Your task to perform on an android device: Open Google Chrome and click the shortcut for Amazon.com Image 0: 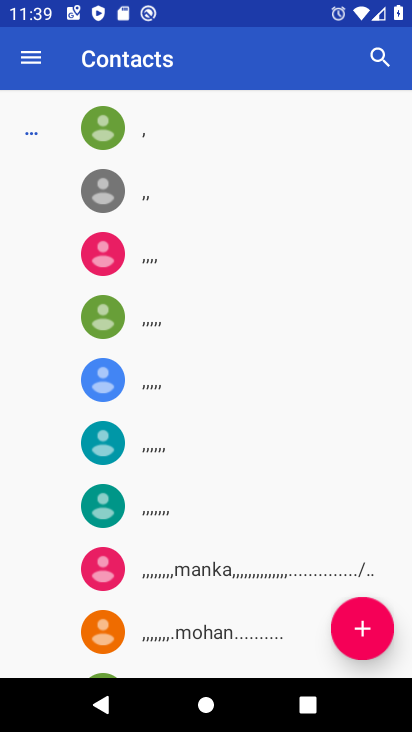
Step 0: press home button
Your task to perform on an android device: Open Google Chrome and click the shortcut for Amazon.com Image 1: 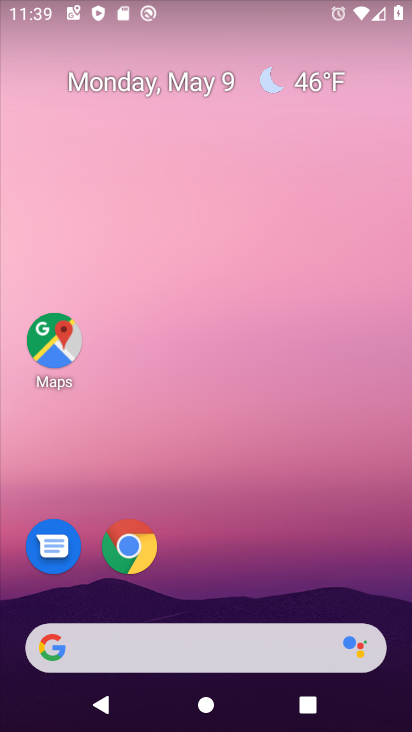
Step 1: click (135, 551)
Your task to perform on an android device: Open Google Chrome and click the shortcut for Amazon.com Image 2: 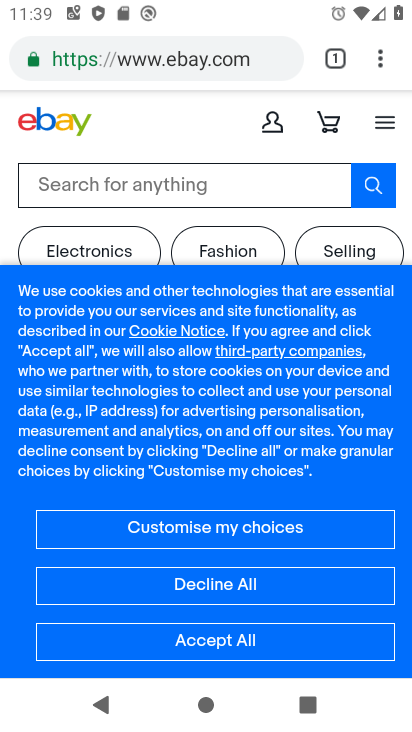
Step 2: click (382, 60)
Your task to perform on an android device: Open Google Chrome and click the shortcut for Amazon.com Image 3: 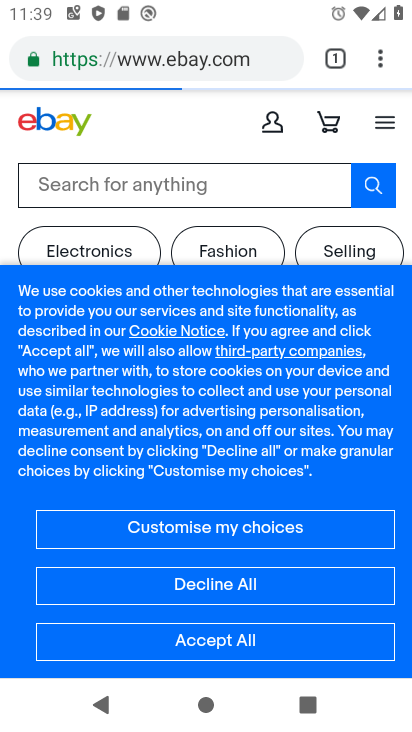
Step 3: drag from (382, 60) to (192, 107)
Your task to perform on an android device: Open Google Chrome and click the shortcut for Amazon.com Image 4: 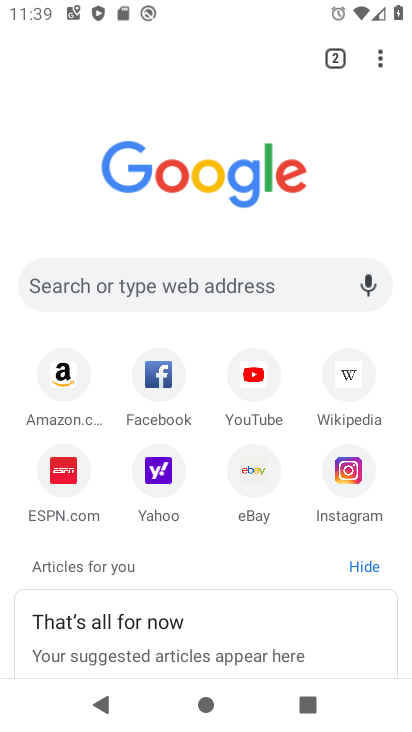
Step 4: click (64, 387)
Your task to perform on an android device: Open Google Chrome and click the shortcut for Amazon.com Image 5: 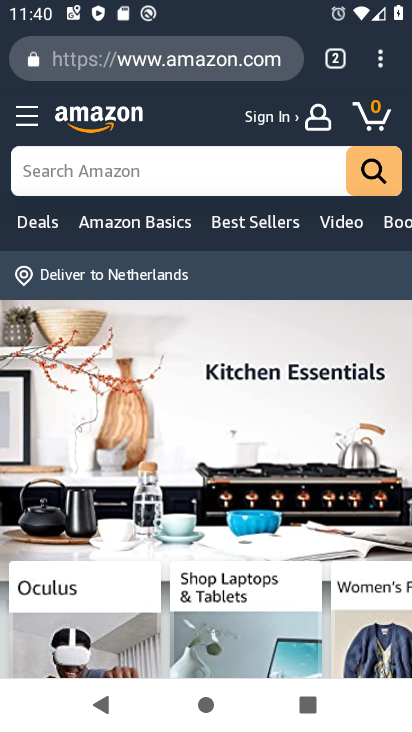
Step 5: task complete